Your task to perform on an android device: choose inbox layout in the gmail app Image 0: 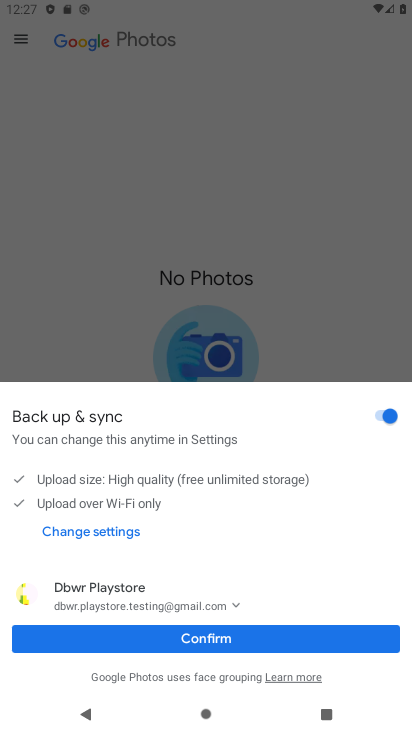
Step 0: click (218, 631)
Your task to perform on an android device: choose inbox layout in the gmail app Image 1: 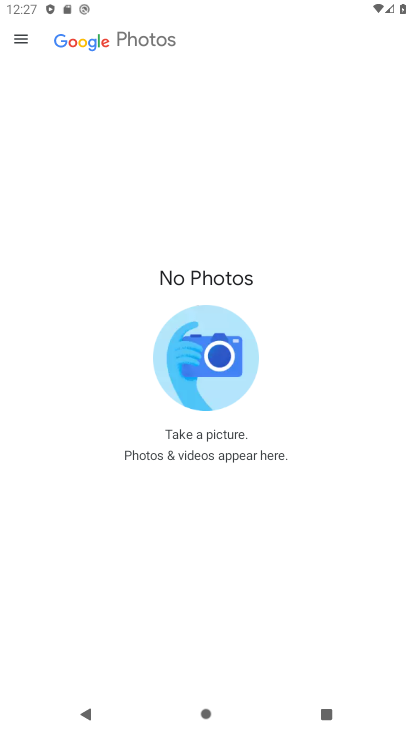
Step 1: click (212, 643)
Your task to perform on an android device: choose inbox layout in the gmail app Image 2: 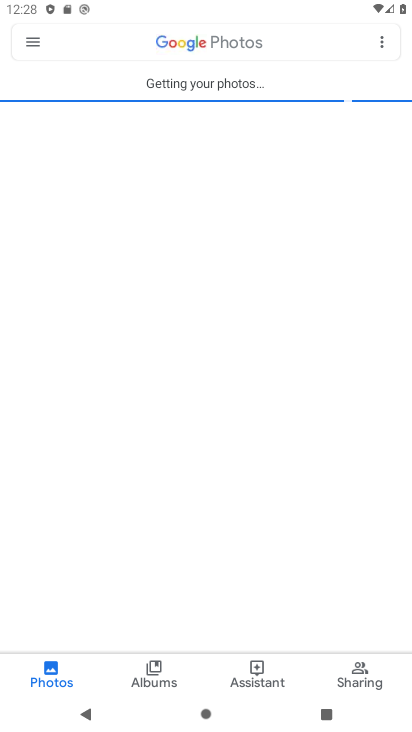
Step 2: press home button
Your task to perform on an android device: choose inbox layout in the gmail app Image 3: 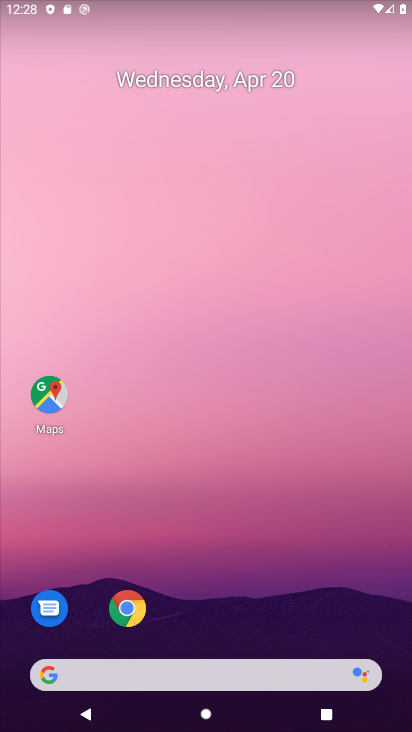
Step 3: drag from (220, 312) to (220, 170)
Your task to perform on an android device: choose inbox layout in the gmail app Image 4: 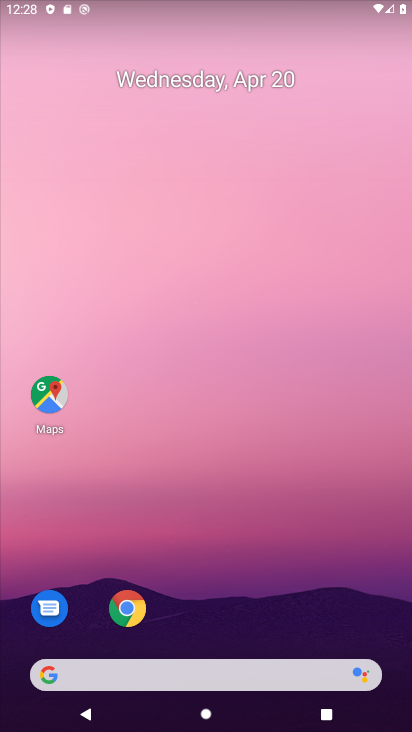
Step 4: drag from (216, 633) to (238, 169)
Your task to perform on an android device: choose inbox layout in the gmail app Image 5: 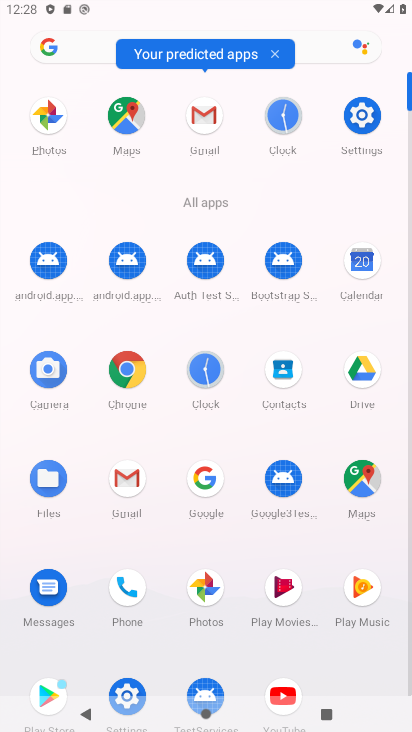
Step 5: click (125, 475)
Your task to perform on an android device: choose inbox layout in the gmail app Image 6: 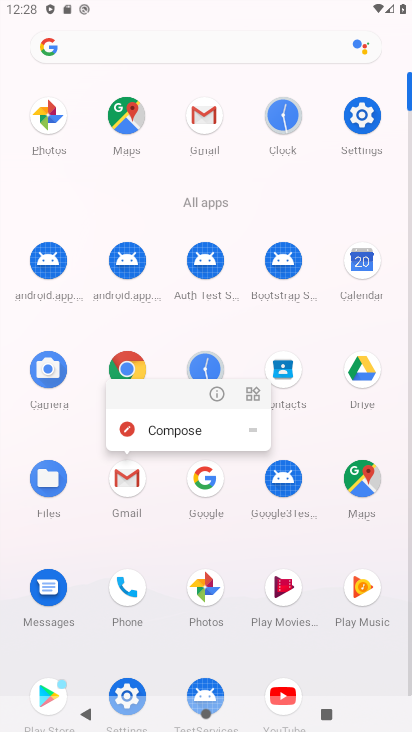
Step 6: click (189, 111)
Your task to perform on an android device: choose inbox layout in the gmail app Image 7: 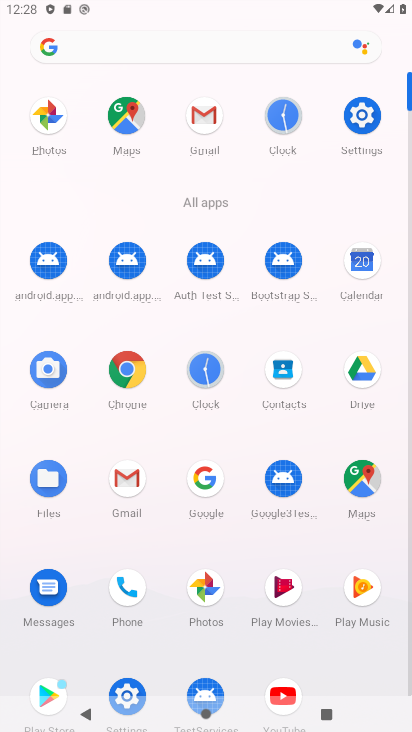
Step 7: click (191, 111)
Your task to perform on an android device: choose inbox layout in the gmail app Image 8: 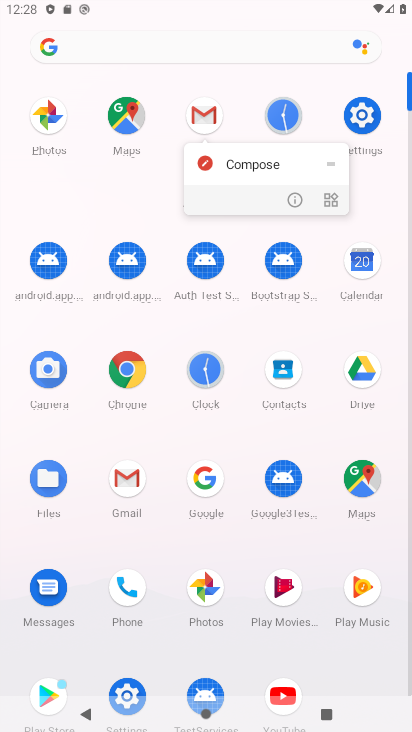
Step 8: click (196, 114)
Your task to perform on an android device: choose inbox layout in the gmail app Image 9: 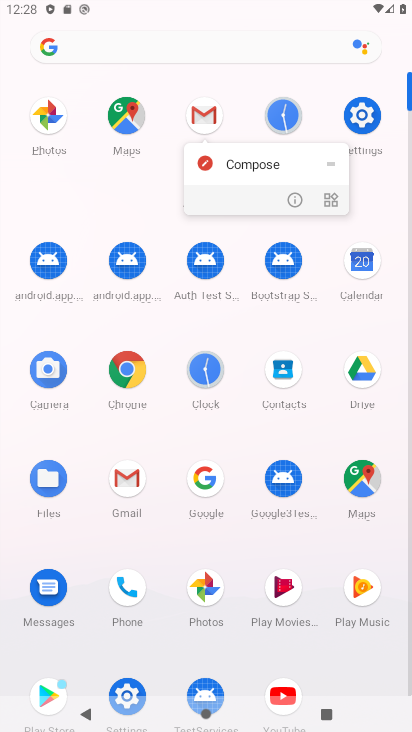
Step 9: click (196, 114)
Your task to perform on an android device: choose inbox layout in the gmail app Image 10: 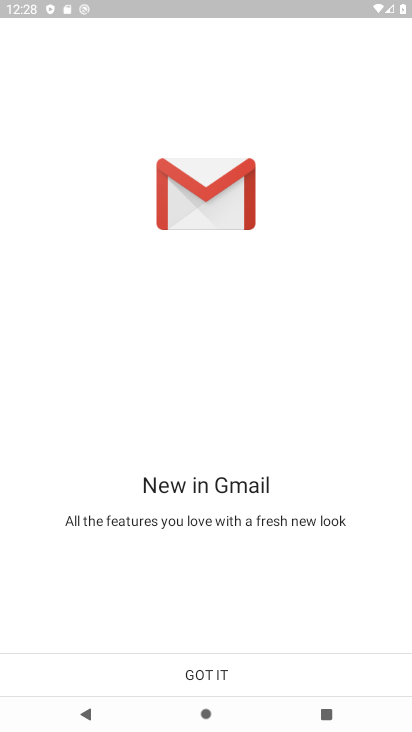
Step 10: click (252, 672)
Your task to perform on an android device: choose inbox layout in the gmail app Image 11: 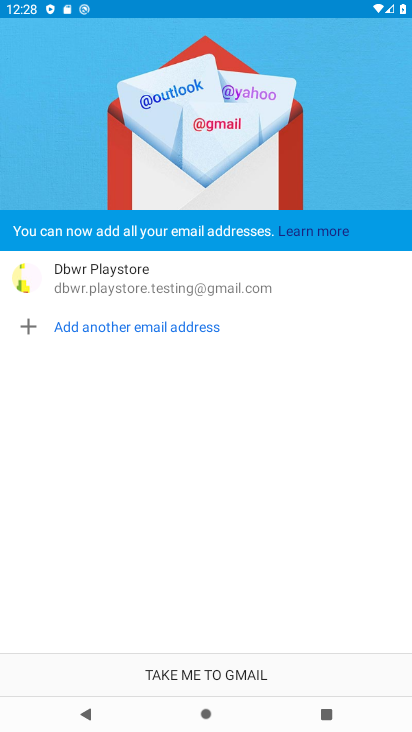
Step 11: click (190, 671)
Your task to perform on an android device: choose inbox layout in the gmail app Image 12: 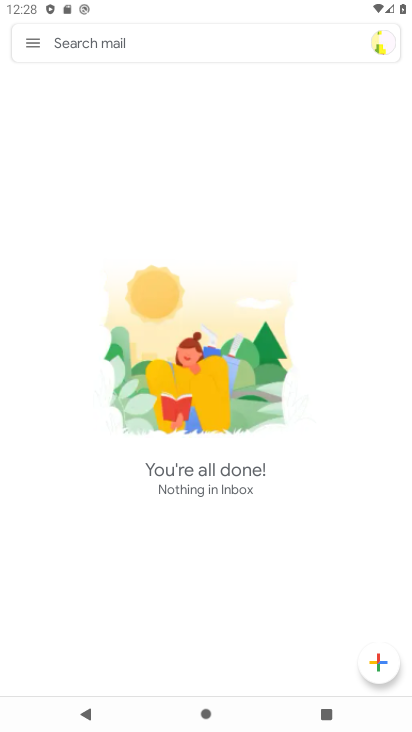
Step 12: click (24, 44)
Your task to perform on an android device: choose inbox layout in the gmail app Image 13: 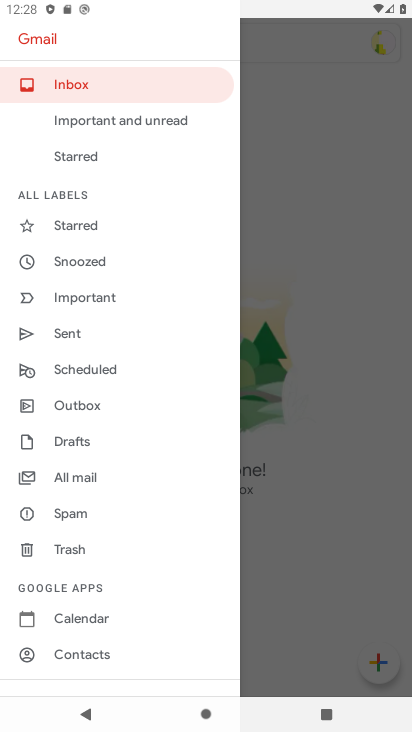
Step 13: drag from (119, 615) to (127, 284)
Your task to perform on an android device: choose inbox layout in the gmail app Image 14: 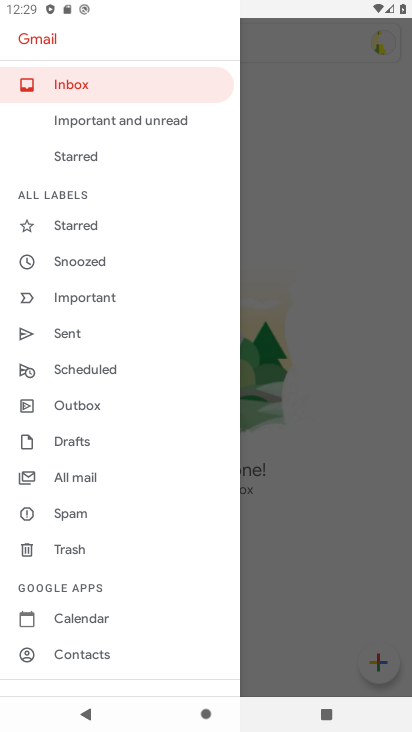
Step 14: drag from (126, 602) to (122, 280)
Your task to perform on an android device: choose inbox layout in the gmail app Image 15: 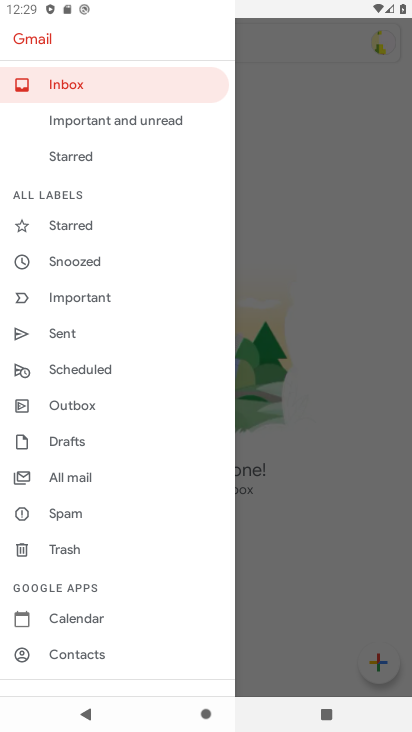
Step 15: drag from (87, 564) to (127, 300)
Your task to perform on an android device: choose inbox layout in the gmail app Image 16: 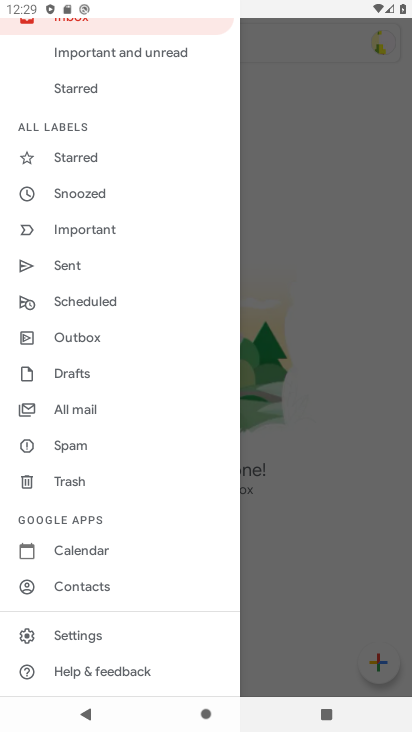
Step 16: click (71, 627)
Your task to perform on an android device: choose inbox layout in the gmail app Image 17: 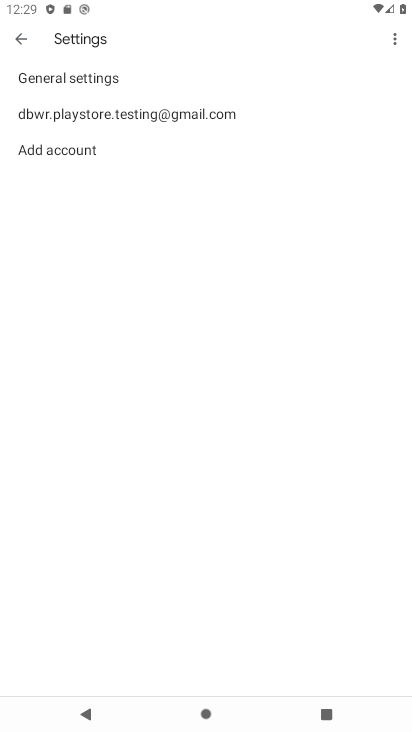
Step 17: click (108, 109)
Your task to perform on an android device: choose inbox layout in the gmail app Image 18: 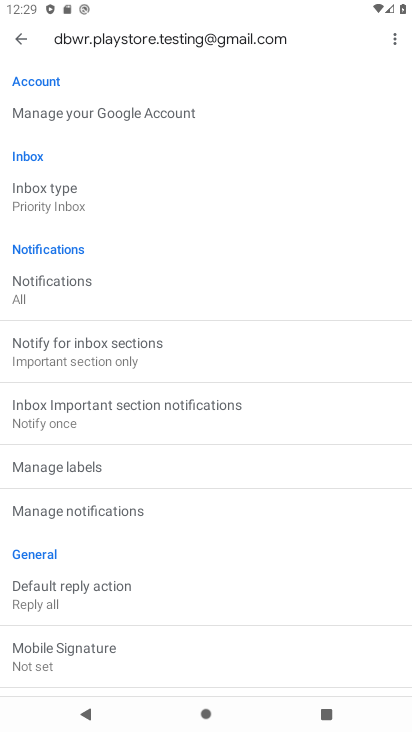
Step 18: click (88, 199)
Your task to perform on an android device: choose inbox layout in the gmail app Image 19: 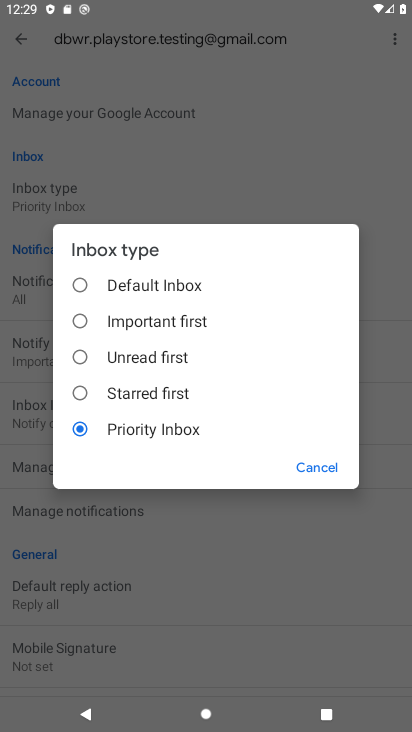
Step 19: click (115, 284)
Your task to perform on an android device: choose inbox layout in the gmail app Image 20: 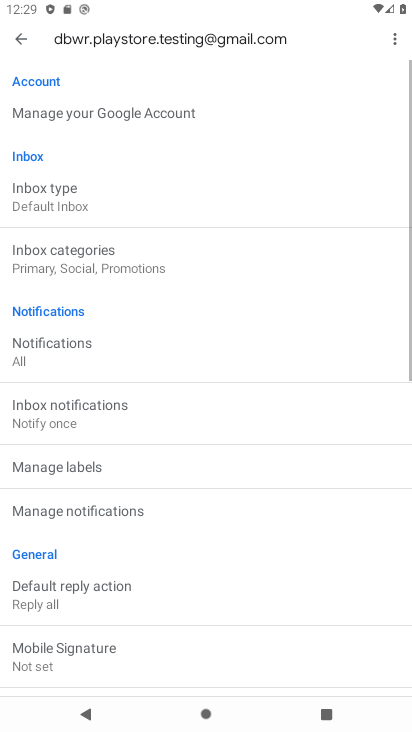
Step 20: task complete